Your task to perform on an android device: remove spam from my inbox in the gmail app Image 0: 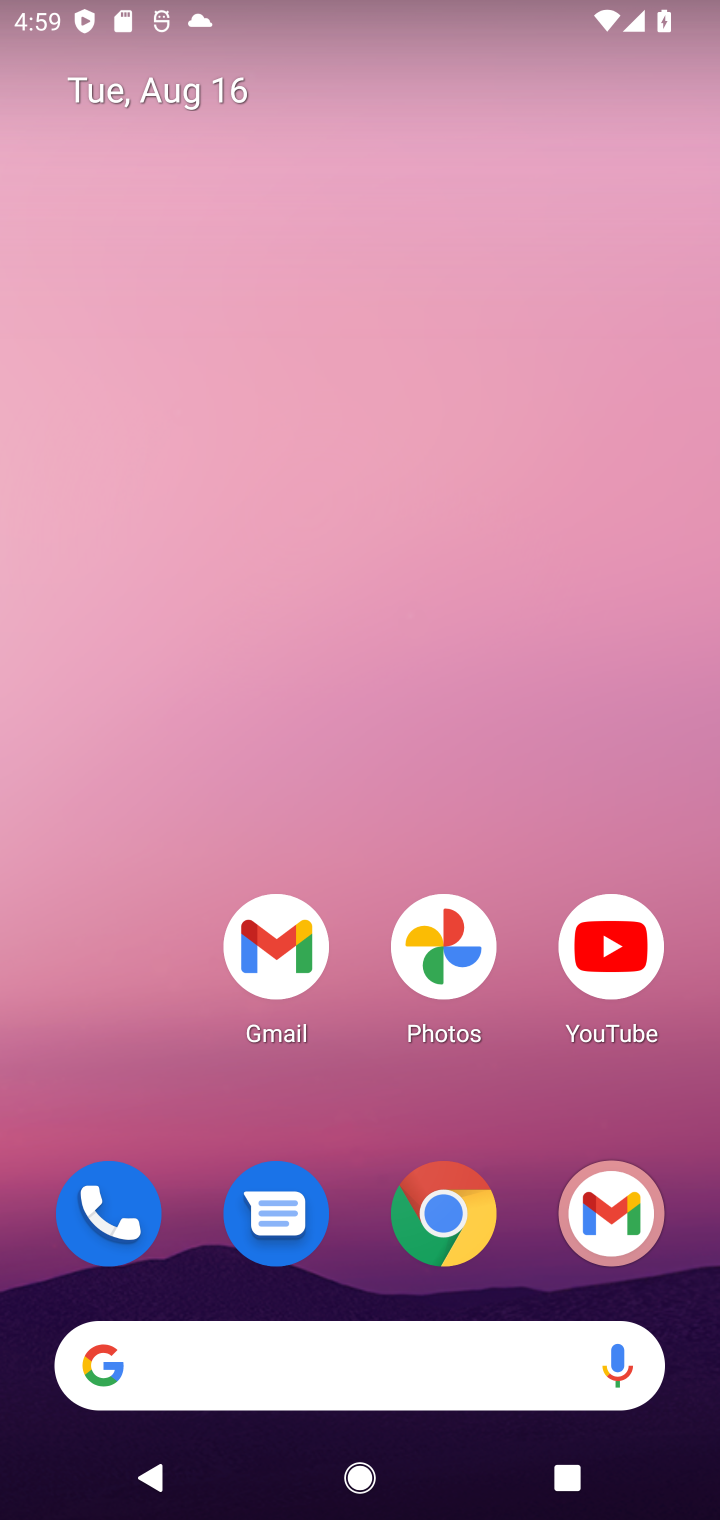
Step 0: drag from (367, 1101) to (422, 213)
Your task to perform on an android device: remove spam from my inbox in the gmail app Image 1: 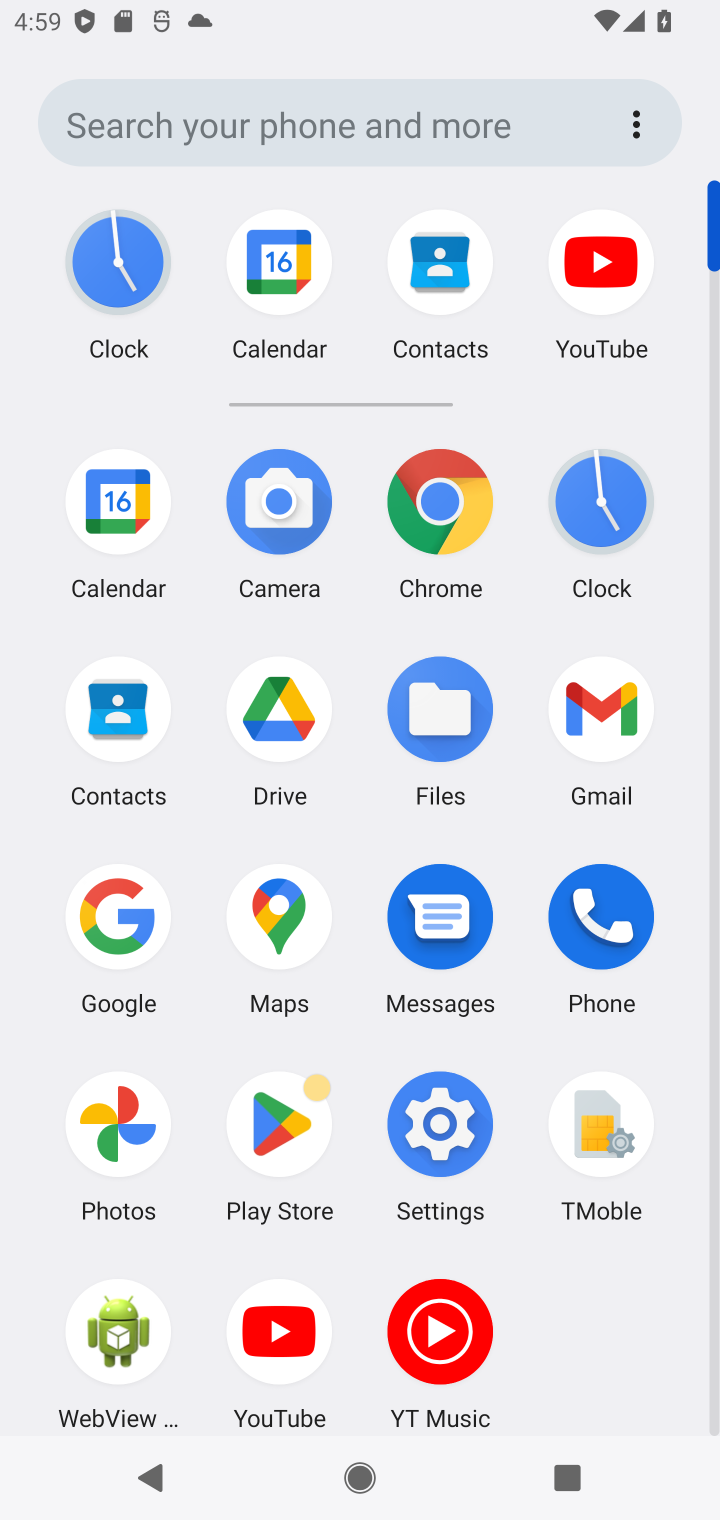
Step 1: click (588, 704)
Your task to perform on an android device: remove spam from my inbox in the gmail app Image 2: 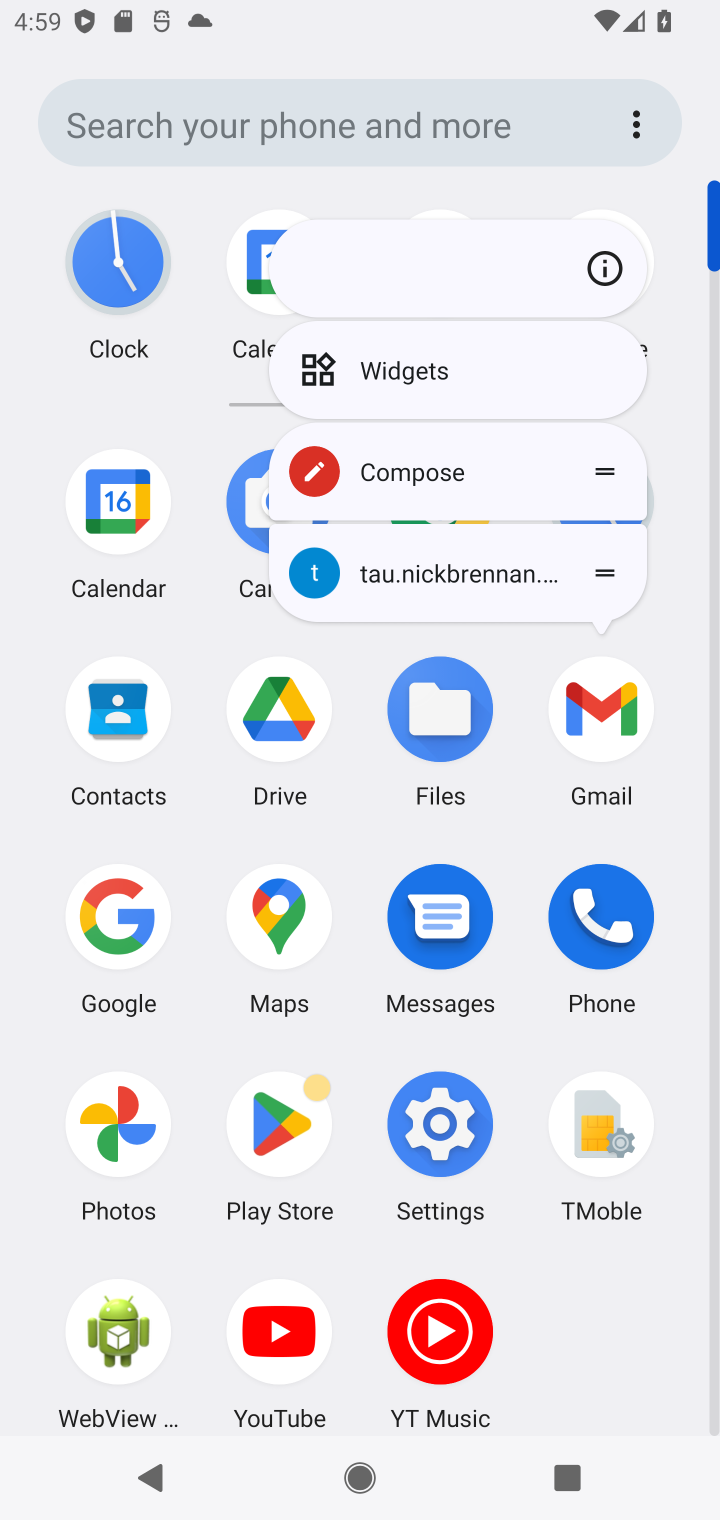
Step 2: click (622, 717)
Your task to perform on an android device: remove spam from my inbox in the gmail app Image 3: 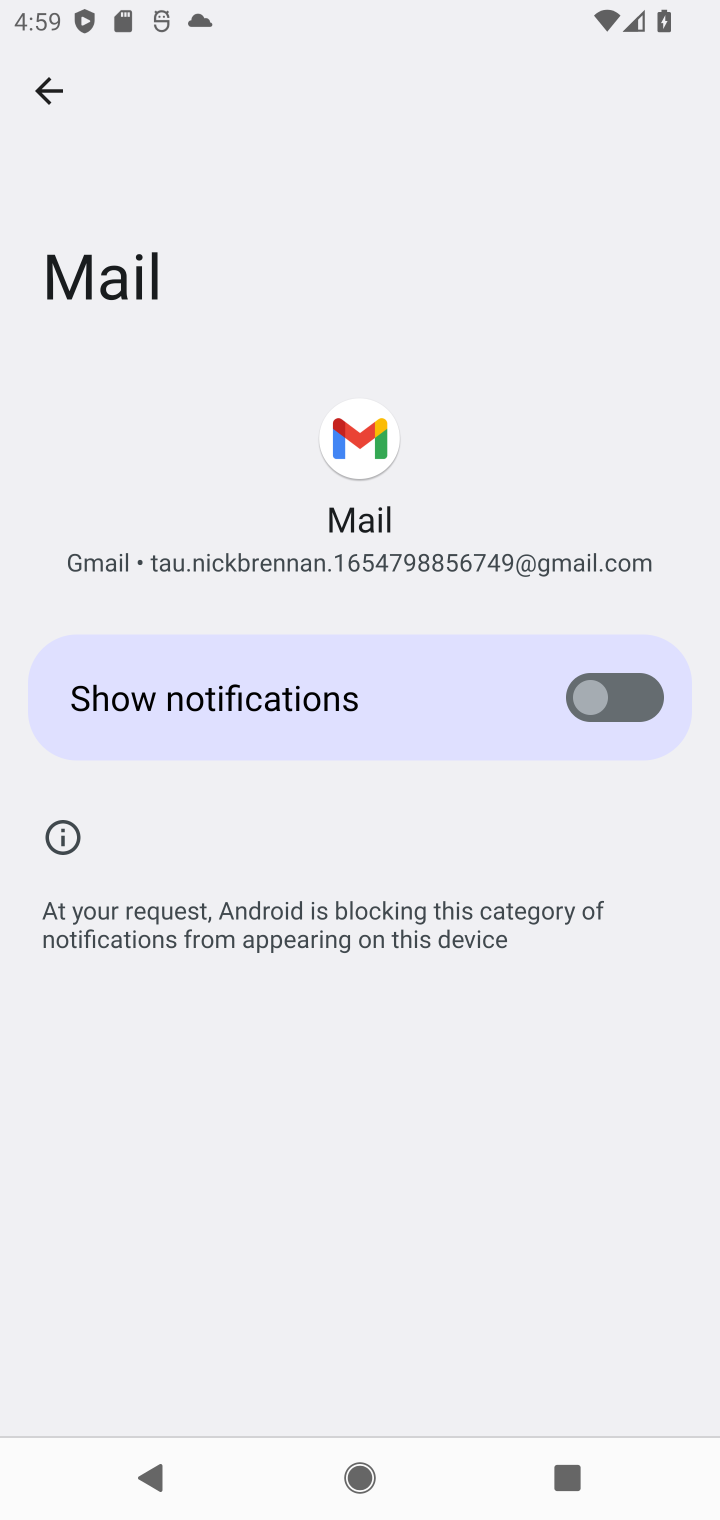
Step 3: click (41, 78)
Your task to perform on an android device: remove spam from my inbox in the gmail app Image 4: 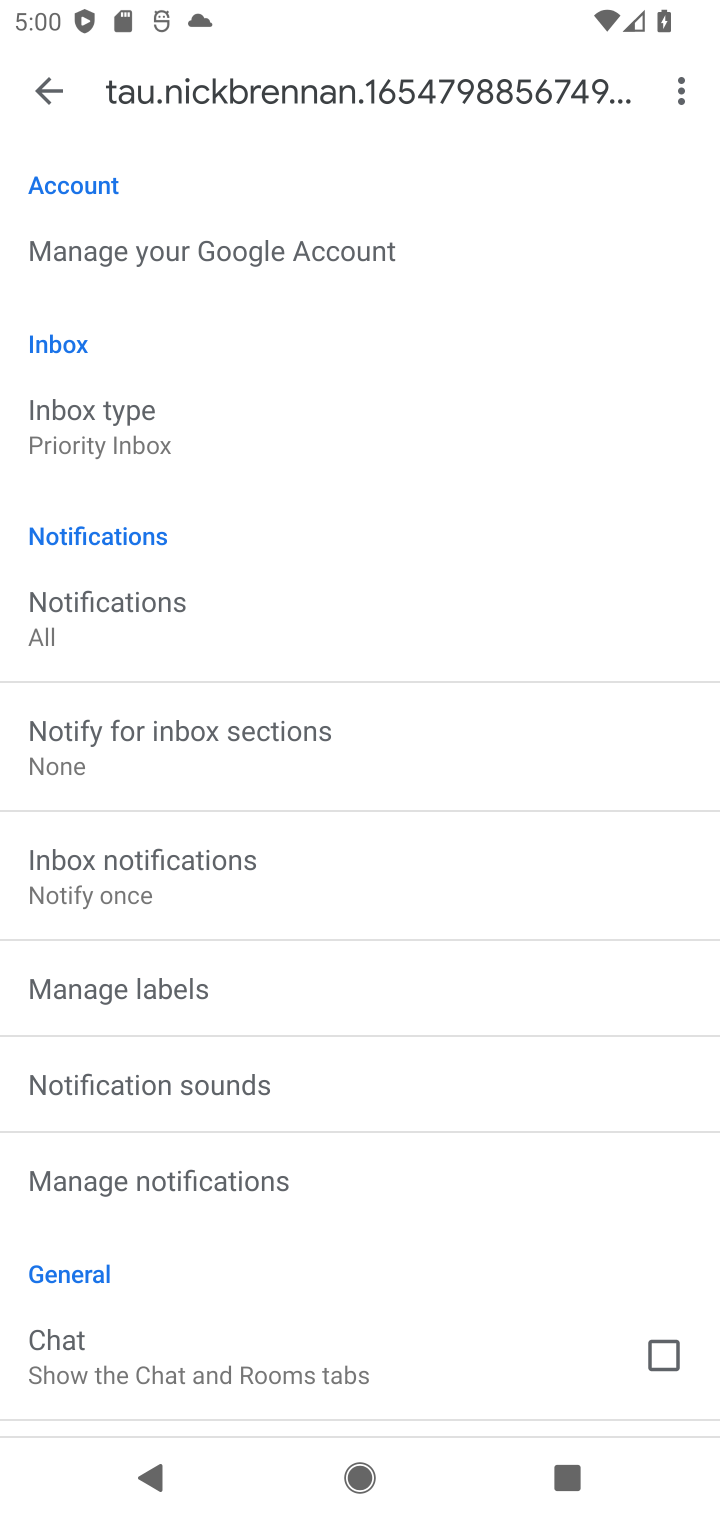
Step 4: click (48, 89)
Your task to perform on an android device: remove spam from my inbox in the gmail app Image 5: 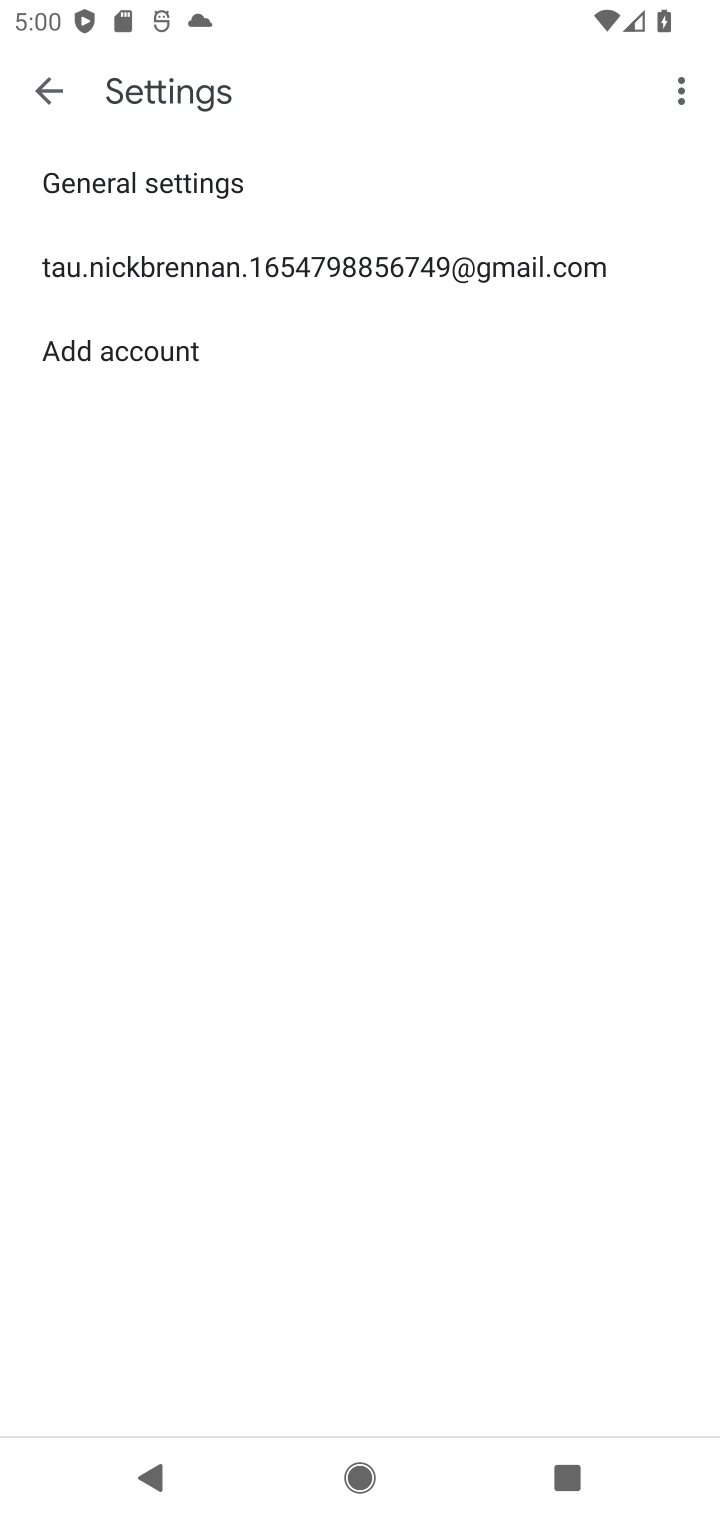
Step 5: click (48, 89)
Your task to perform on an android device: remove spam from my inbox in the gmail app Image 6: 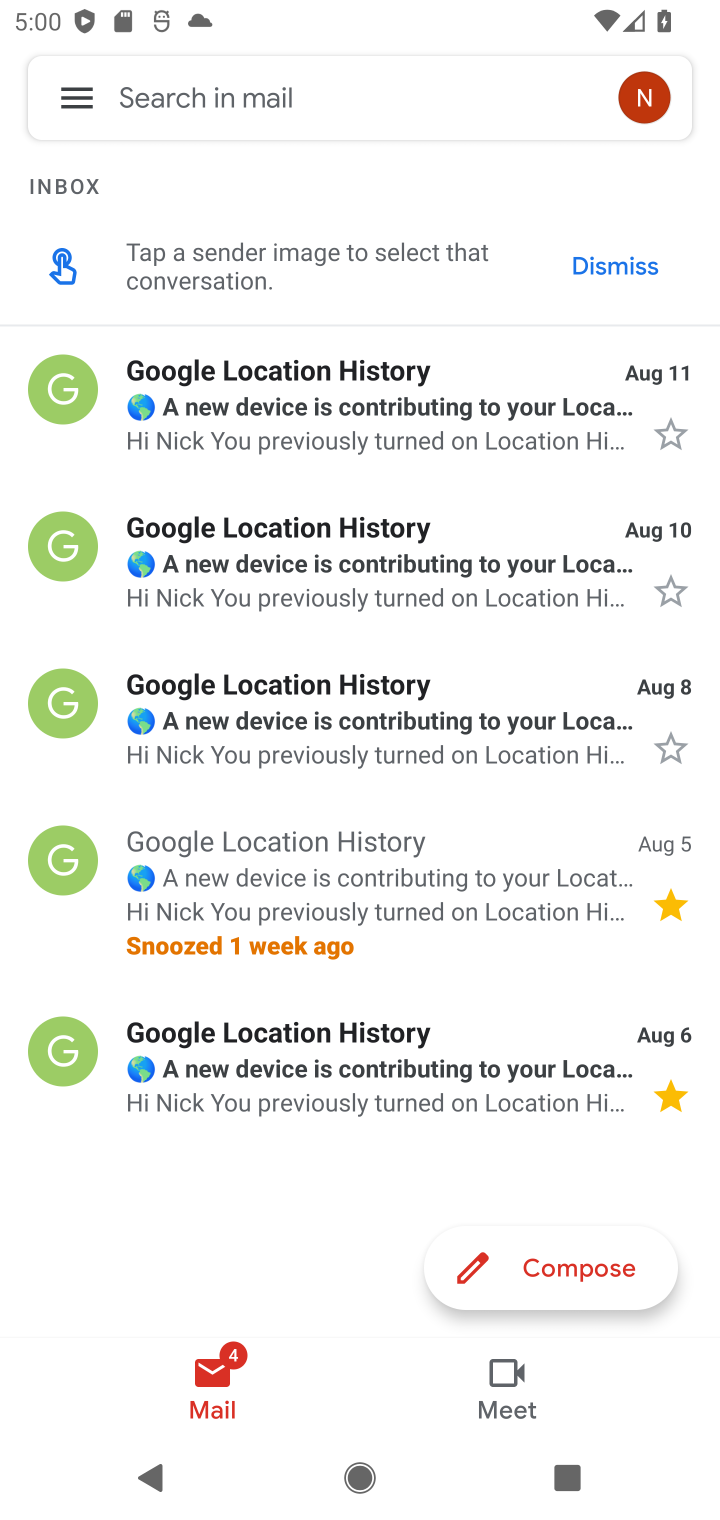
Step 6: task complete